Your task to perform on an android device: turn off location Image 0: 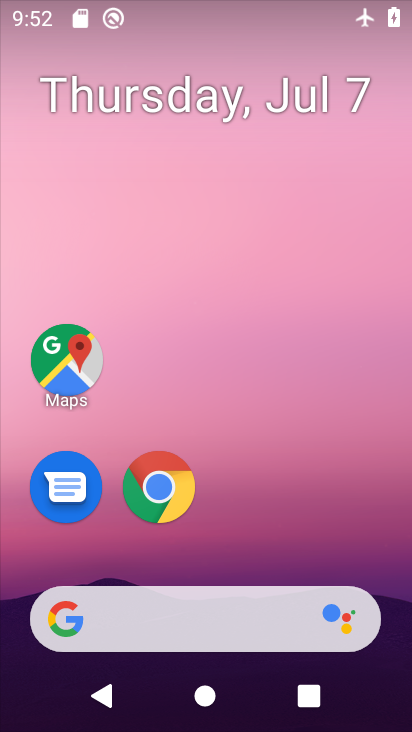
Step 0: drag from (373, 496) to (374, 140)
Your task to perform on an android device: turn off location Image 1: 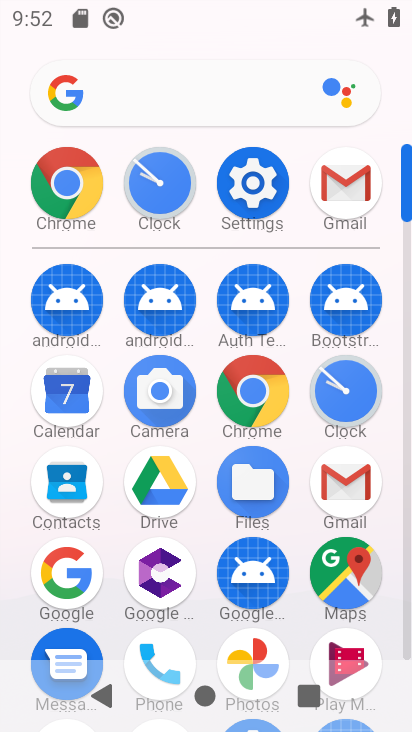
Step 1: click (261, 199)
Your task to perform on an android device: turn off location Image 2: 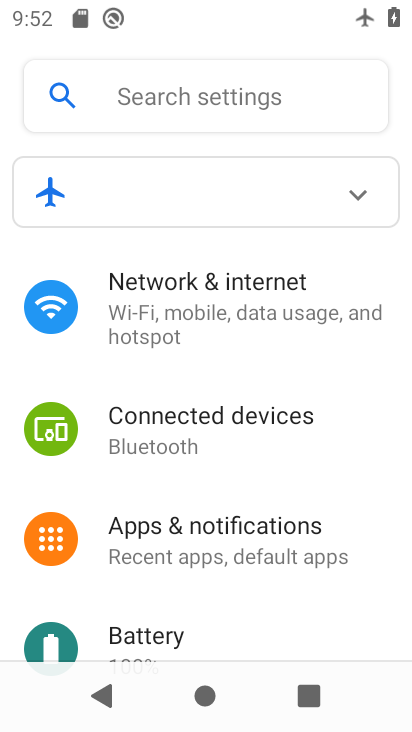
Step 2: drag from (367, 447) to (372, 348)
Your task to perform on an android device: turn off location Image 3: 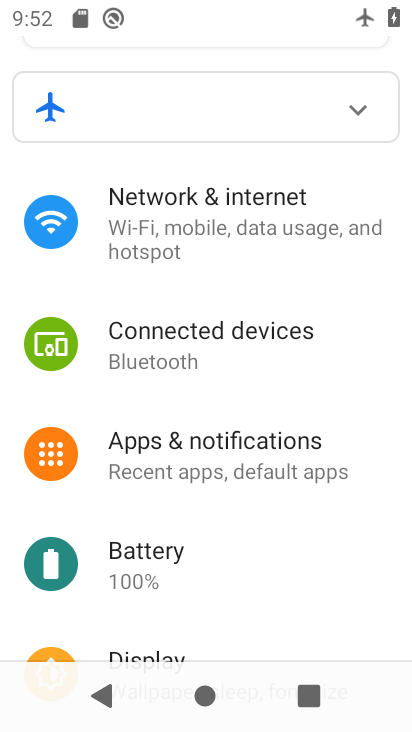
Step 3: drag from (358, 499) to (367, 362)
Your task to perform on an android device: turn off location Image 4: 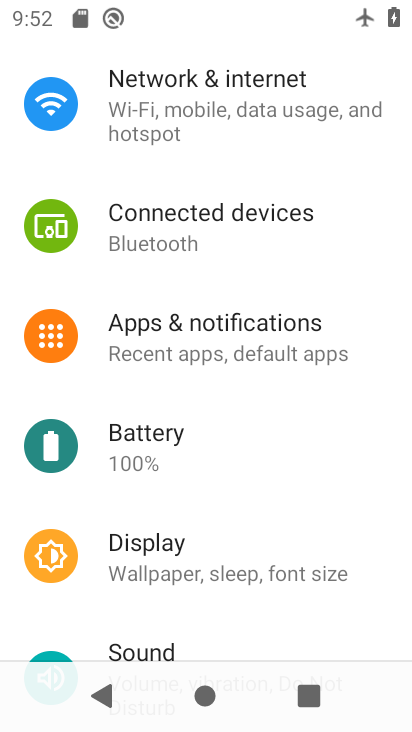
Step 4: drag from (365, 519) to (366, 398)
Your task to perform on an android device: turn off location Image 5: 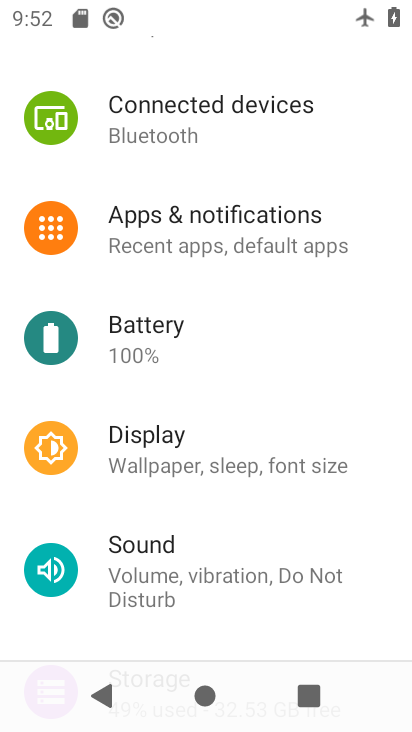
Step 5: drag from (374, 534) to (373, 375)
Your task to perform on an android device: turn off location Image 6: 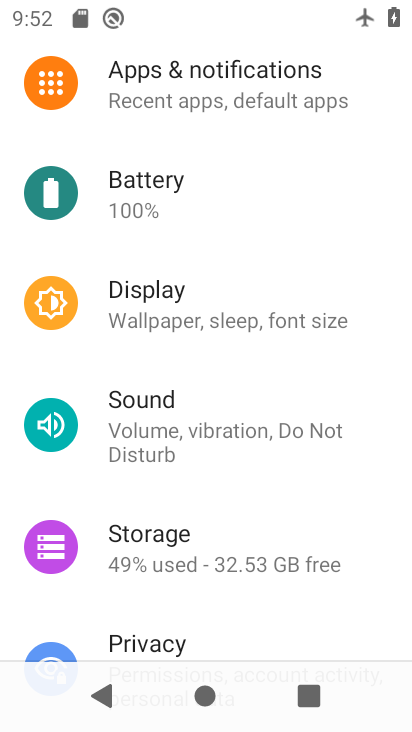
Step 6: drag from (361, 528) to (363, 368)
Your task to perform on an android device: turn off location Image 7: 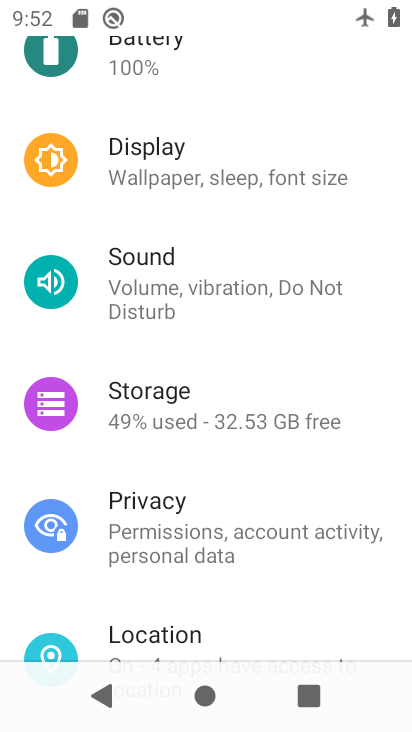
Step 7: drag from (360, 627) to (359, 410)
Your task to perform on an android device: turn off location Image 8: 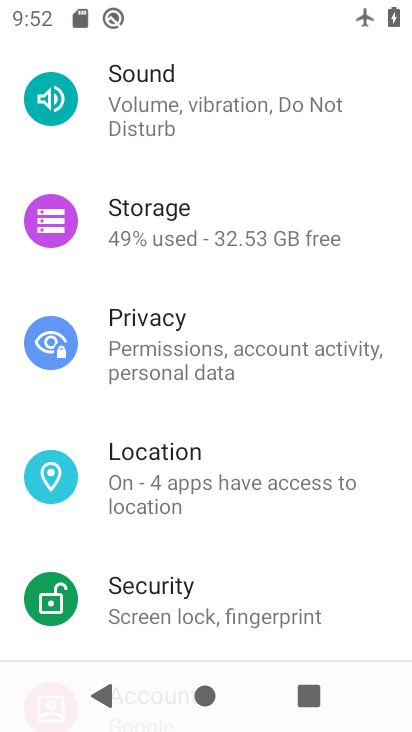
Step 8: drag from (358, 542) to (361, 402)
Your task to perform on an android device: turn off location Image 9: 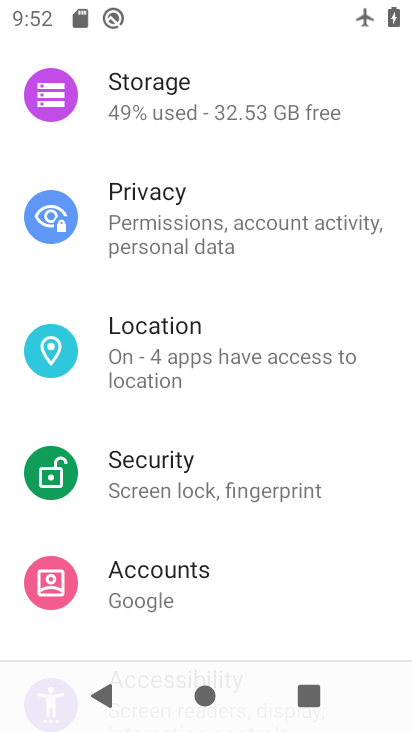
Step 9: click (316, 383)
Your task to perform on an android device: turn off location Image 10: 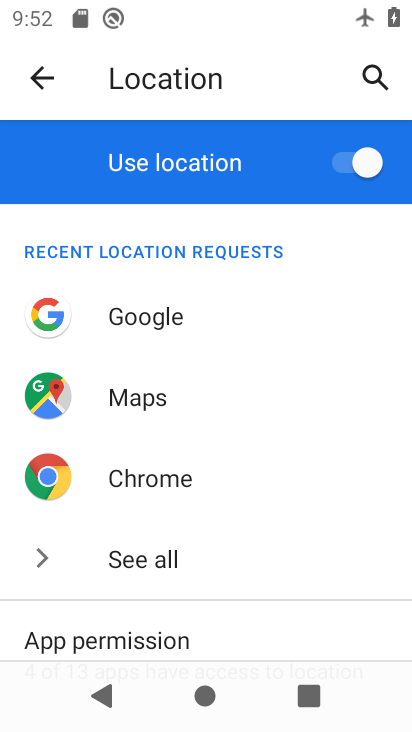
Step 10: click (356, 167)
Your task to perform on an android device: turn off location Image 11: 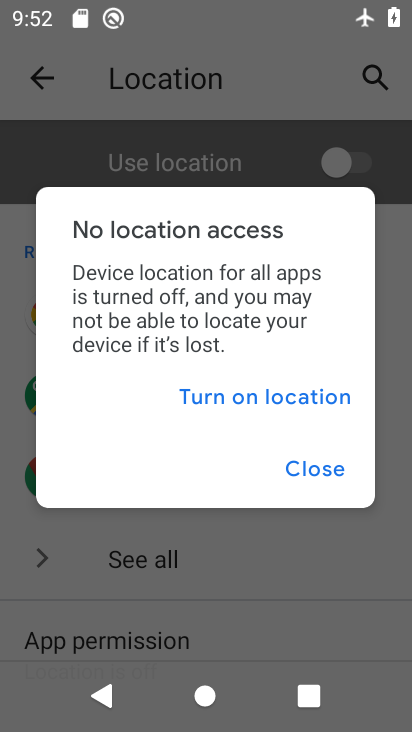
Step 11: task complete